Your task to perform on an android device: clear history in the chrome app Image 0: 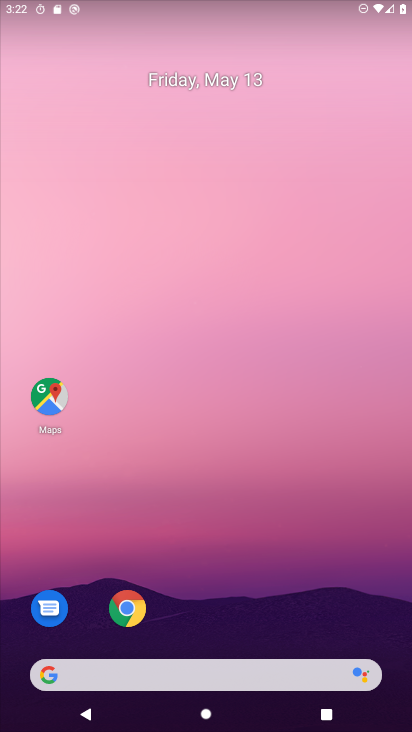
Step 0: press home button
Your task to perform on an android device: clear history in the chrome app Image 1: 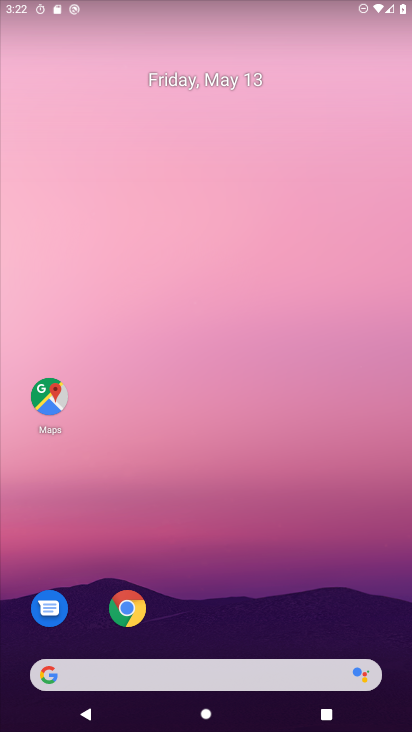
Step 1: drag from (249, 632) to (237, 585)
Your task to perform on an android device: clear history in the chrome app Image 2: 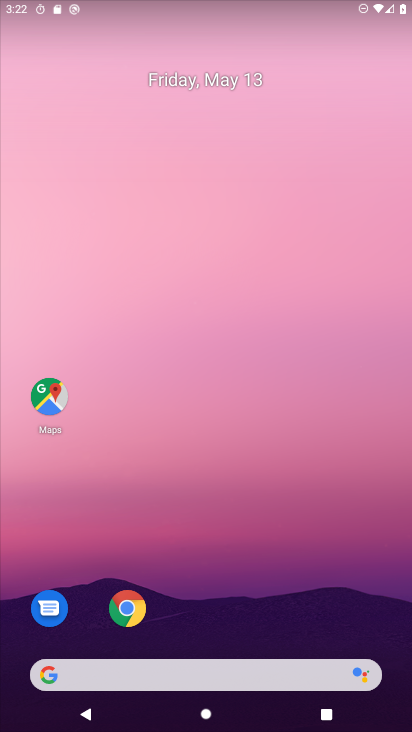
Step 2: click (141, 609)
Your task to perform on an android device: clear history in the chrome app Image 3: 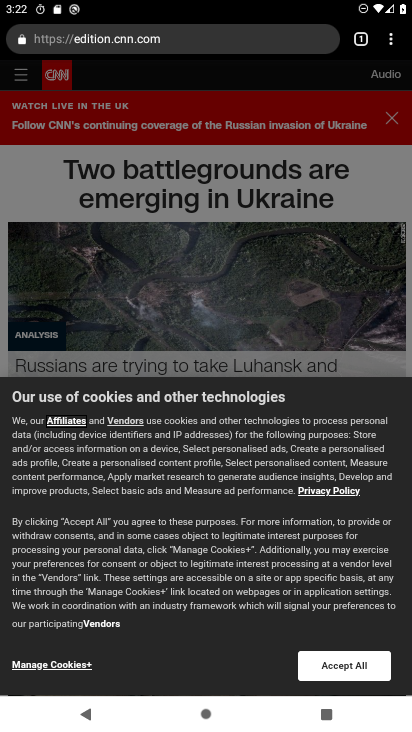
Step 3: click (388, 39)
Your task to perform on an android device: clear history in the chrome app Image 4: 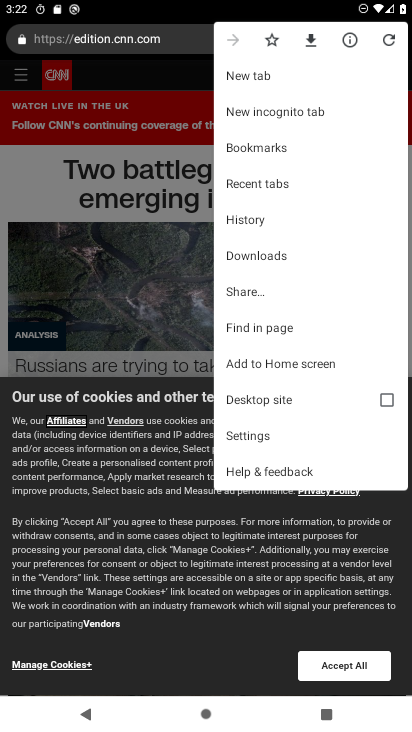
Step 4: click (265, 216)
Your task to perform on an android device: clear history in the chrome app Image 5: 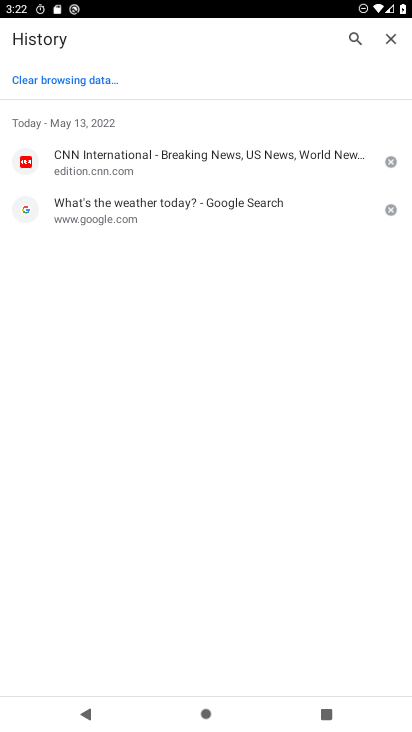
Step 5: click (69, 83)
Your task to perform on an android device: clear history in the chrome app Image 6: 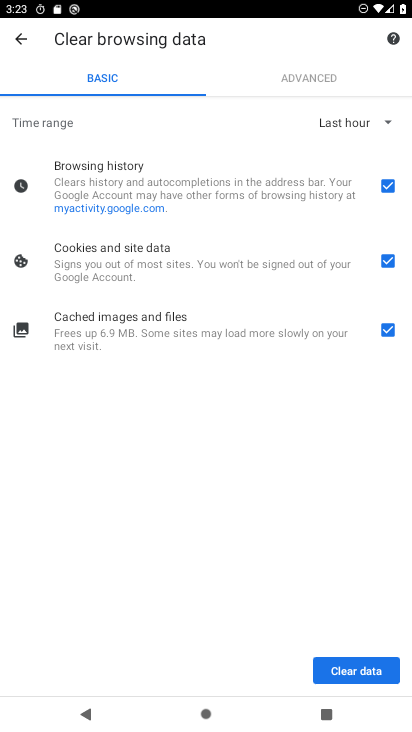
Step 6: click (369, 660)
Your task to perform on an android device: clear history in the chrome app Image 7: 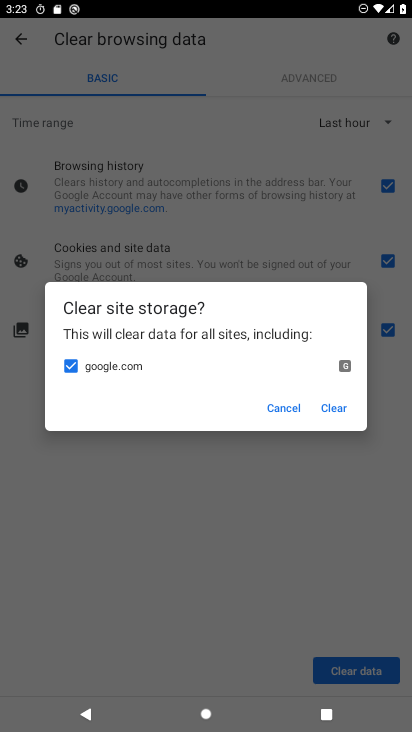
Step 7: click (317, 410)
Your task to perform on an android device: clear history in the chrome app Image 8: 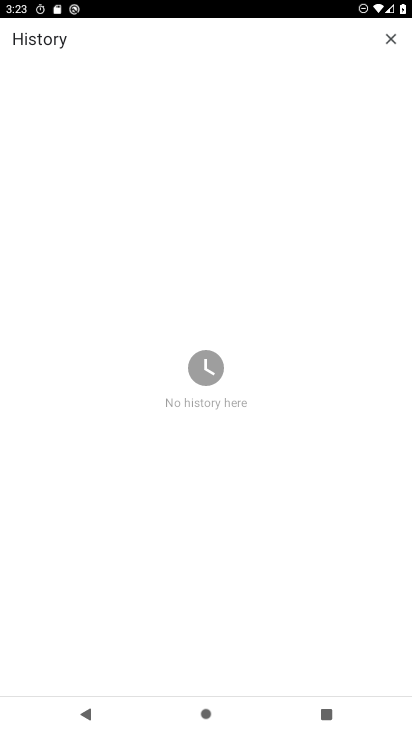
Step 8: task complete